Your task to perform on an android device: read, delete, or share a saved page in the chrome app Image 0: 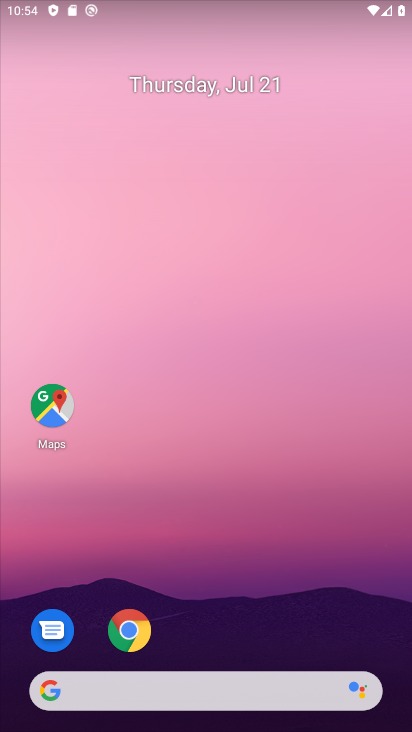
Step 0: click (121, 630)
Your task to perform on an android device: read, delete, or share a saved page in the chrome app Image 1: 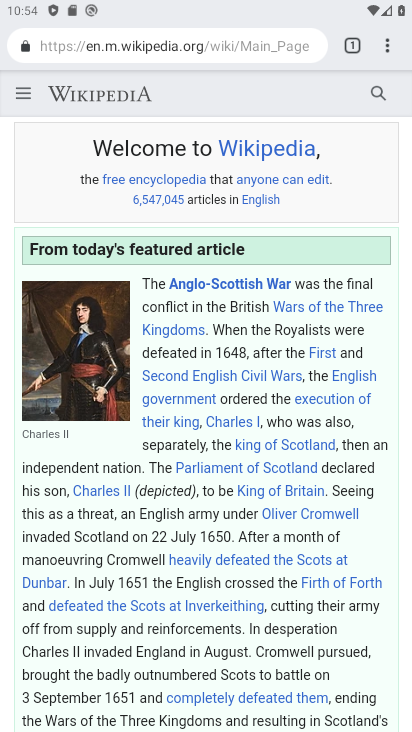
Step 1: click (388, 45)
Your task to perform on an android device: read, delete, or share a saved page in the chrome app Image 2: 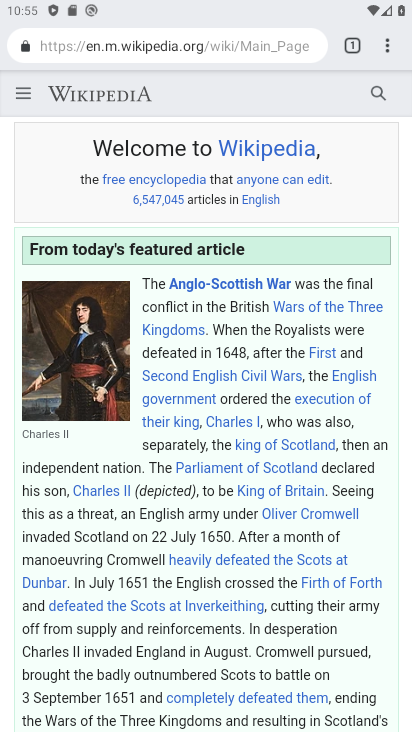
Step 2: click (388, 45)
Your task to perform on an android device: read, delete, or share a saved page in the chrome app Image 3: 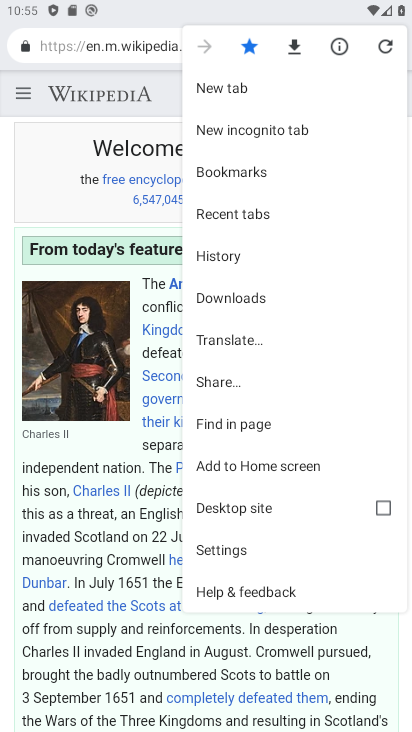
Step 3: click (225, 296)
Your task to perform on an android device: read, delete, or share a saved page in the chrome app Image 4: 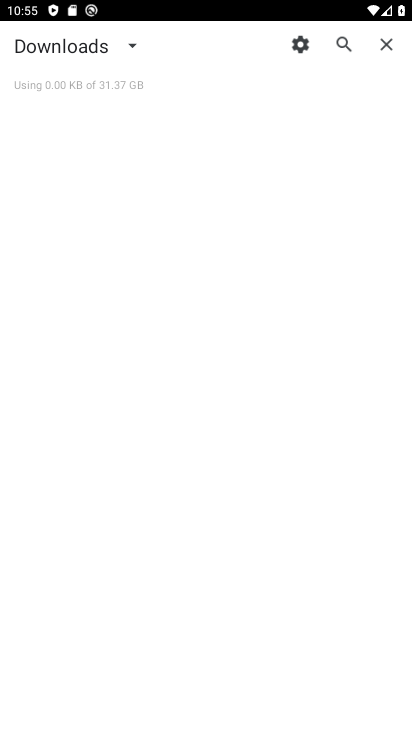
Step 4: click (133, 48)
Your task to perform on an android device: read, delete, or share a saved page in the chrome app Image 5: 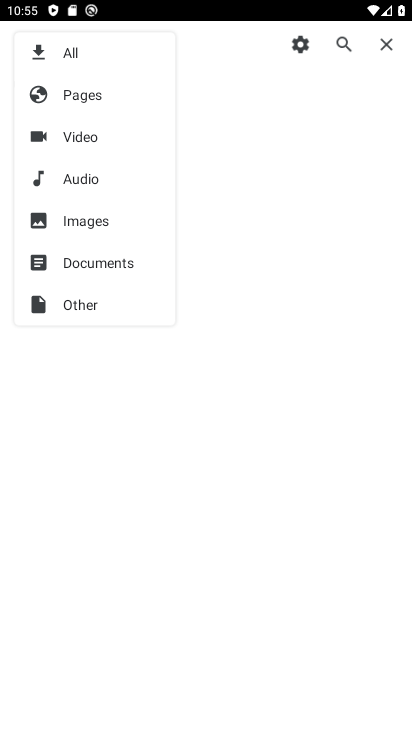
Step 5: click (86, 95)
Your task to perform on an android device: read, delete, or share a saved page in the chrome app Image 6: 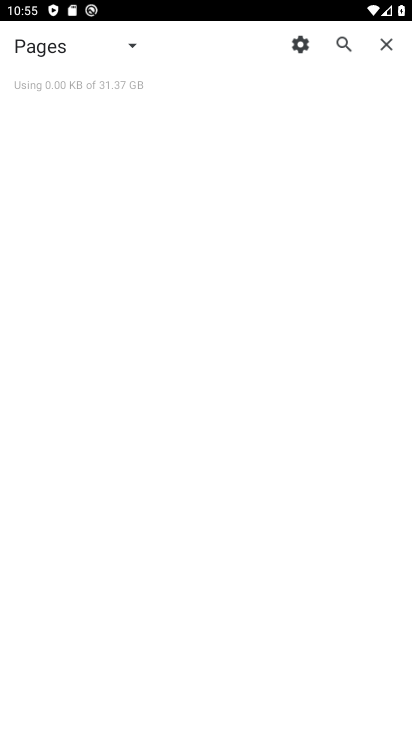
Step 6: task complete